Your task to perform on an android device: Go to calendar. Show me events next week Image 0: 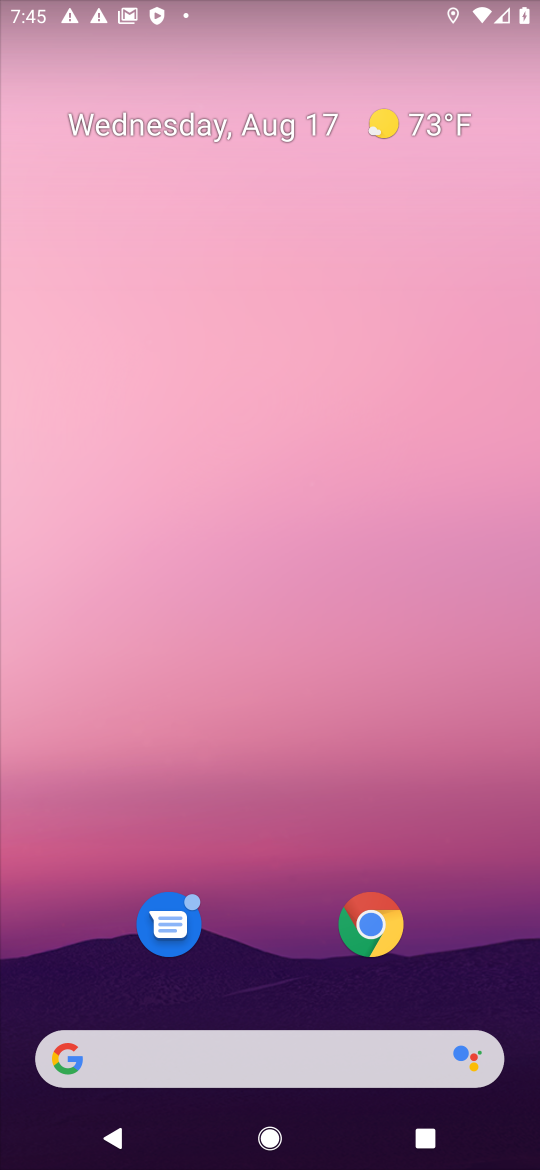
Step 0: drag from (321, 970) to (408, 85)
Your task to perform on an android device: Go to calendar. Show me events next week Image 1: 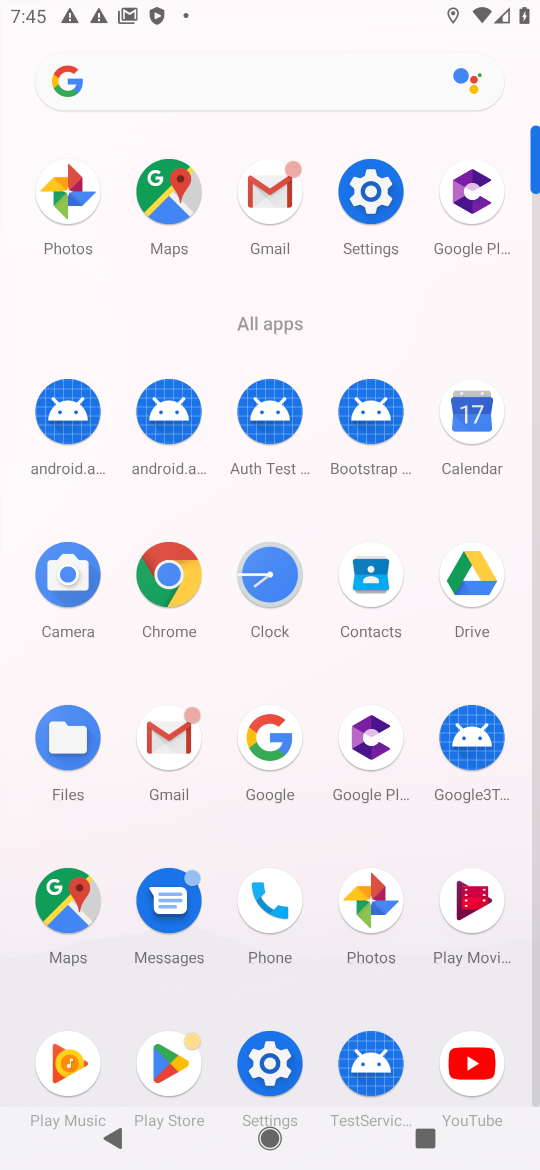
Step 1: click (477, 422)
Your task to perform on an android device: Go to calendar. Show me events next week Image 2: 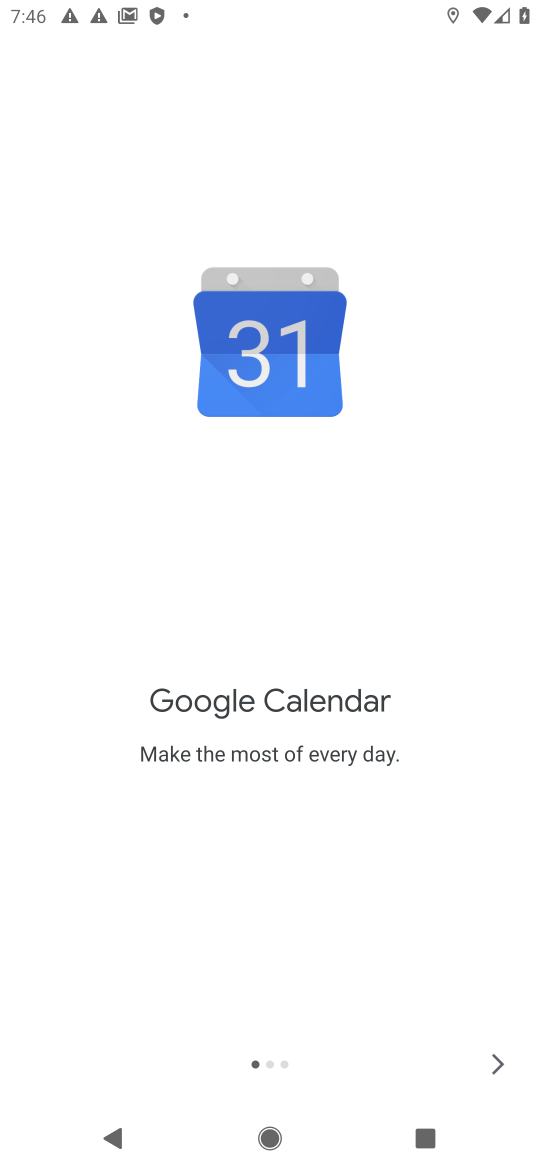
Step 2: click (489, 1064)
Your task to perform on an android device: Go to calendar. Show me events next week Image 3: 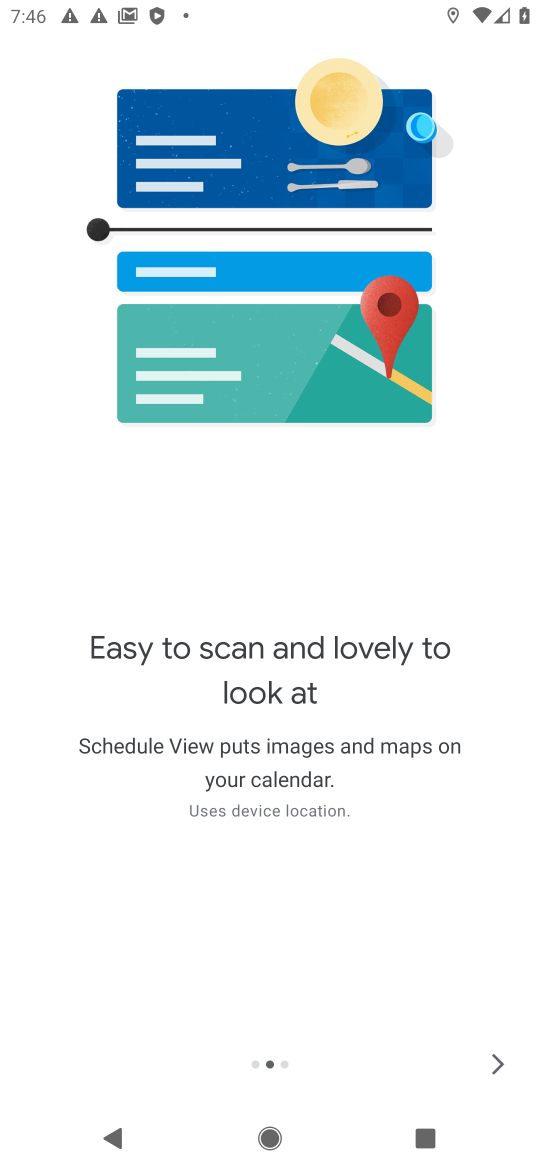
Step 3: click (492, 1064)
Your task to perform on an android device: Go to calendar. Show me events next week Image 4: 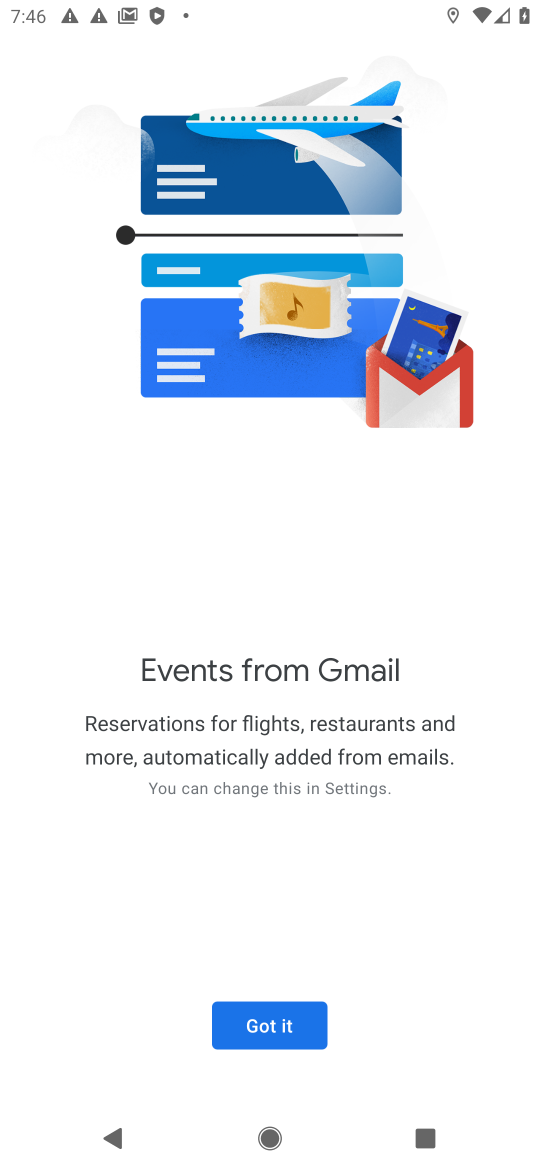
Step 4: click (303, 1024)
Your task to perform on an android device: Go to calendar. Show me events next week Image 5: 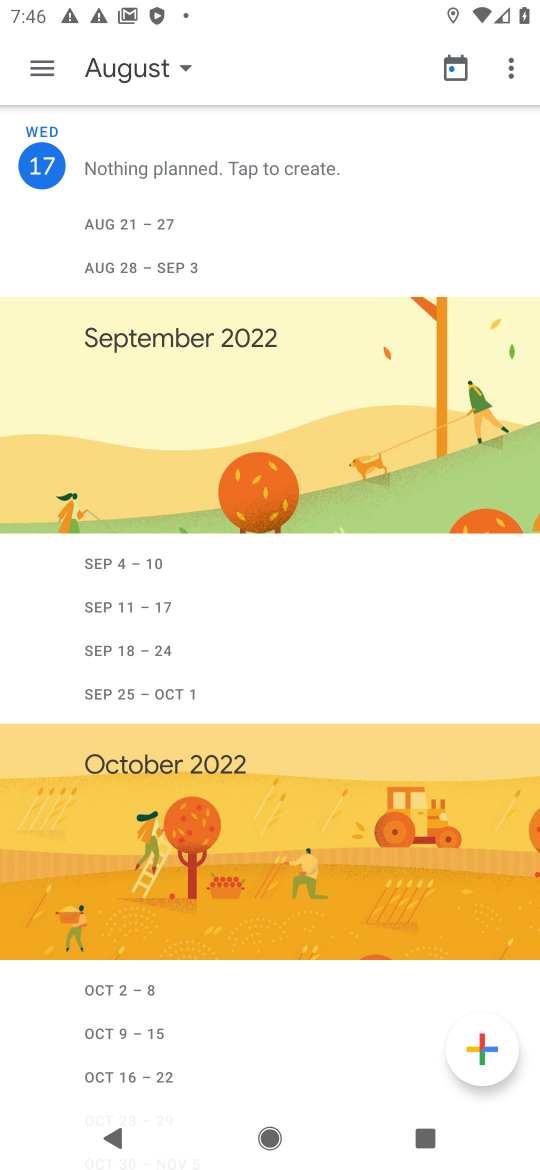
Step 5: click (168, 73)
Your task to perform on an android device: Go to calendar. Show me events next week Image 6: 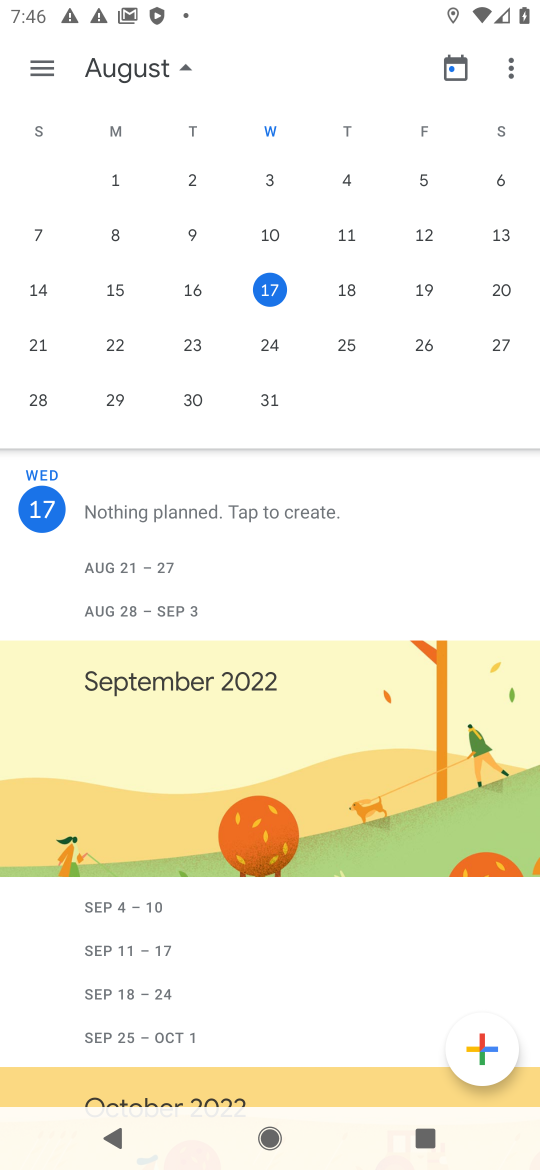
Step 6: click (275, 343)
Your task to perform on an android device: Go to calendar. Show me events next week Image 7: 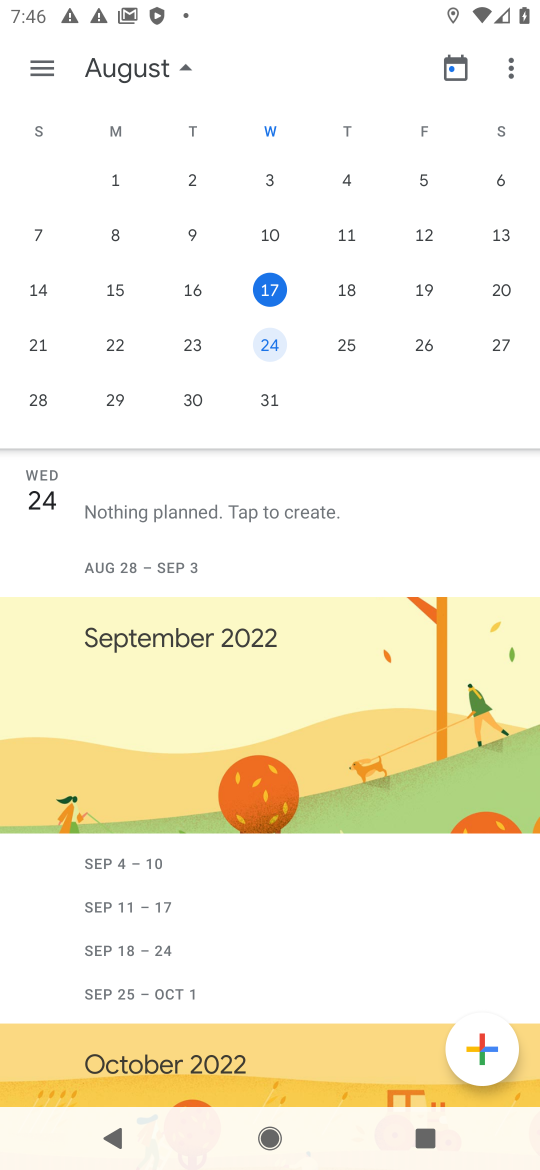
Step 7: task complete